Your task to perform on an android device: change timer sound Image 0: 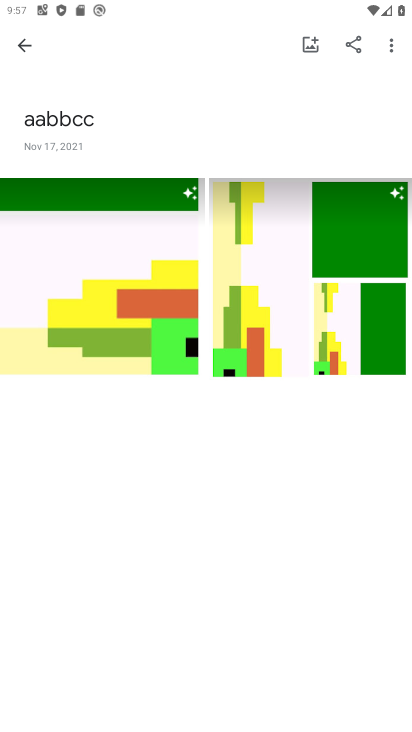
Step 0: press home button
Your task to perform on an android device: change timer sound Image 1: 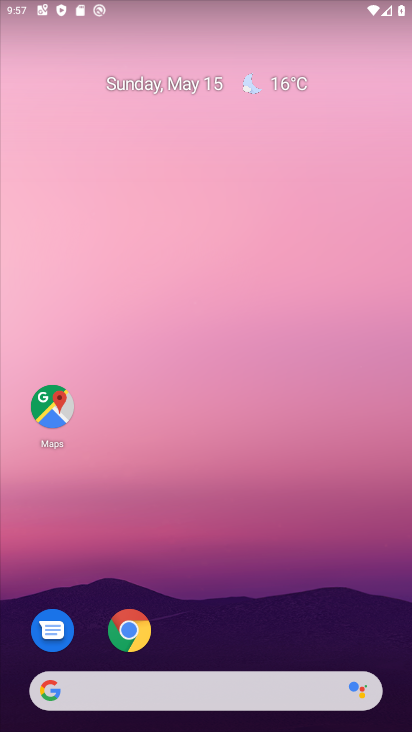
Step 1: click (218, 233)
Your task to perform on an android device: change timer sound Image 2: 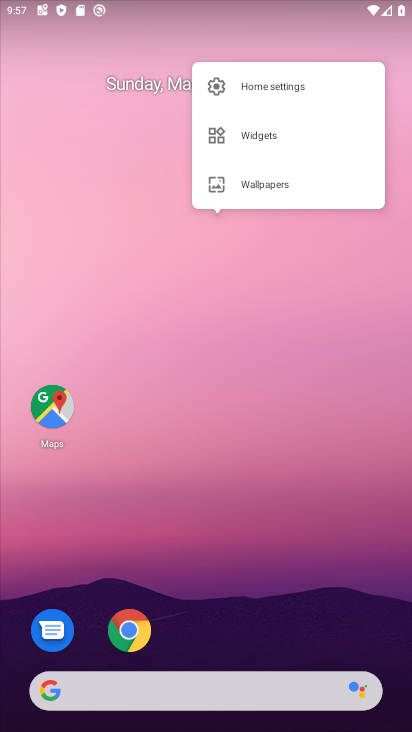
Step 2: click (206, 451)
Your task to perform on an android device: change timer sound Image 3: 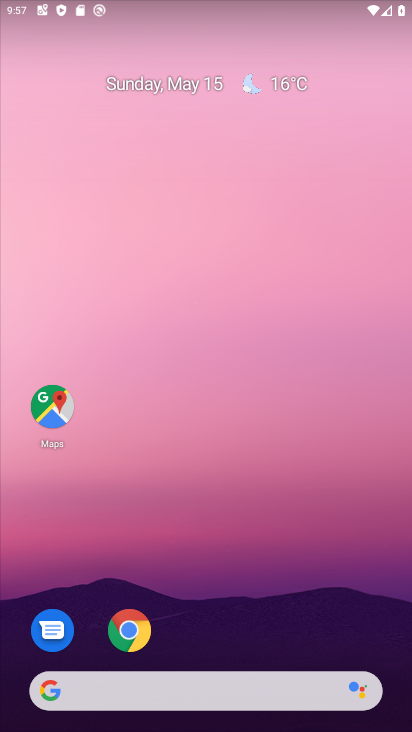
Step 3: drag from (212, 654) to (183, 7)
Your task to perform on an android device: change timer sound Image 4: 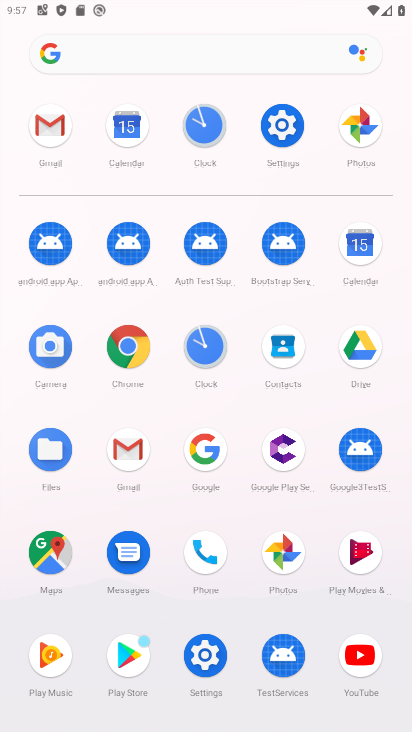
Step 4: click (196, 353)
Your task to perform on an android device: change timer sound Image 5: 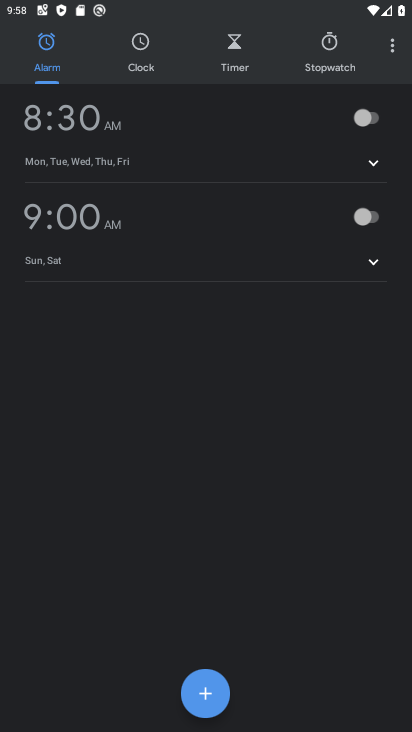
Step 5: click (390, 51)
Your task to perform on an android device: change timer sound Image 6: 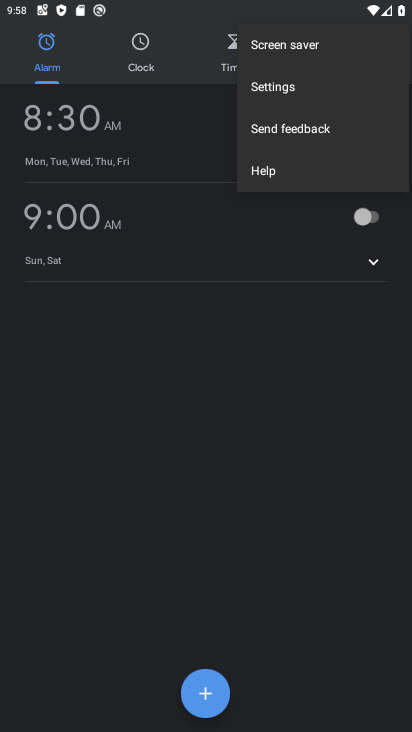
Step 6: click (275, 90)
Your task to perform on an android device: change timer sound Image 7: 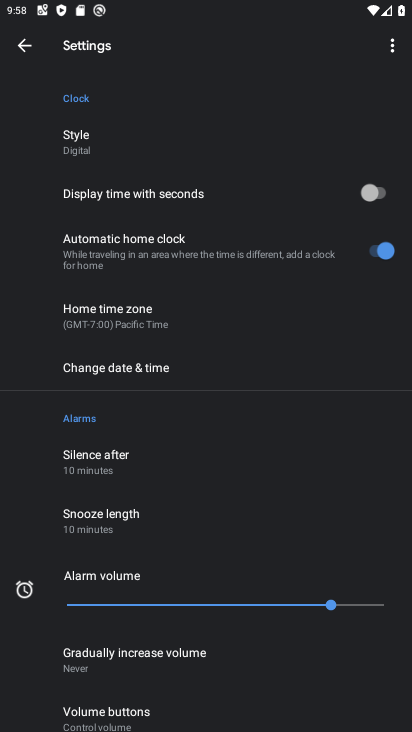
Step 7: drag from (201, 692) to (231, 468)
Your task to perform on an android device: change timer sound Image 8: 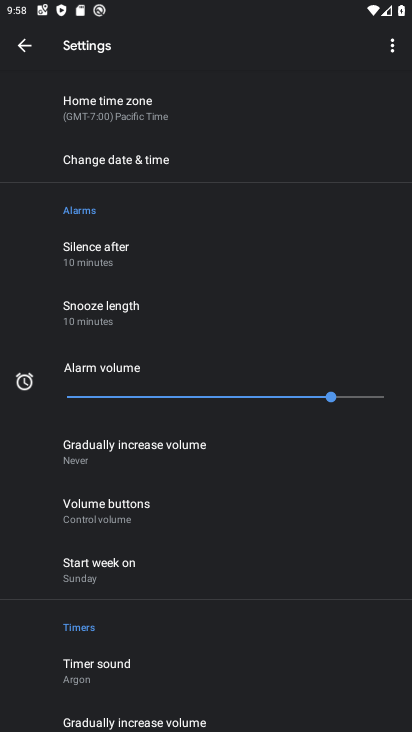
Step 8: click (178, 662)
Your task to perform on an android device: change timer sound Image 9: 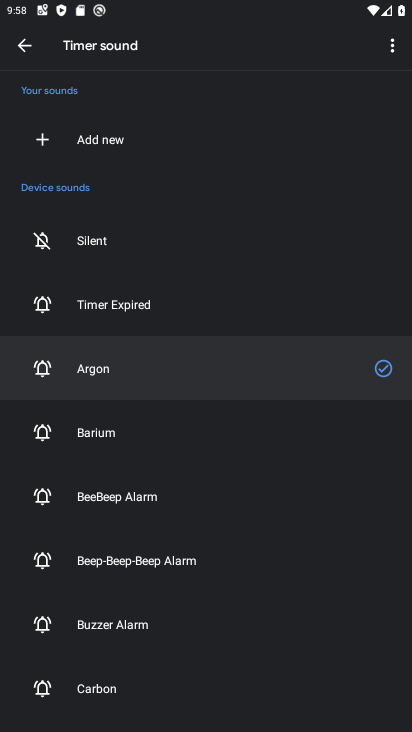
Step 9: click (121, 442)
Your task to perform on an android device: change timer sound Image 10: 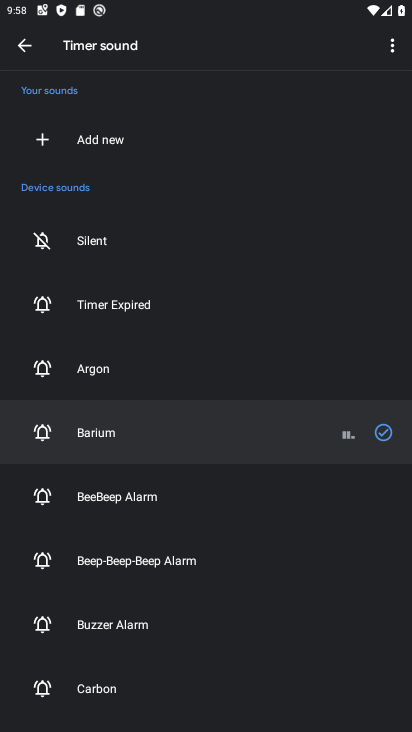
Step 10: task complete